Your task to perform on an android device: toggle show notifications on the lock screen Image 0: 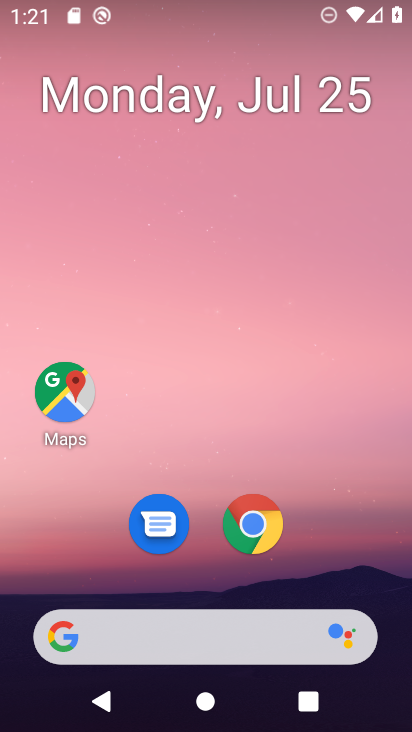
Step 0: drag from (209, 652) to (375, 170)
Your task to perform on an android device: toggle show notifications on the lock screen Image 1: 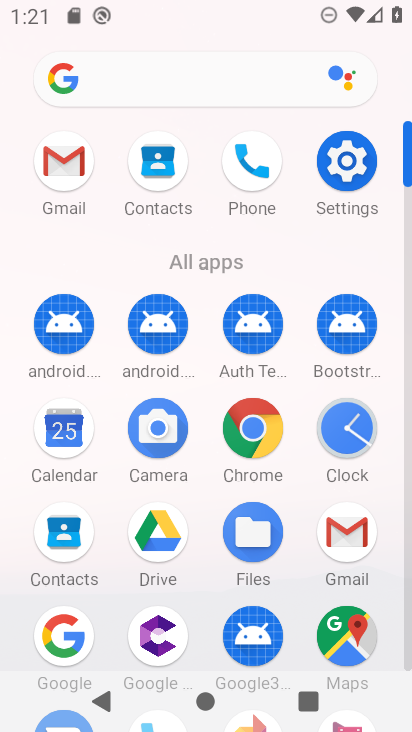
Step 1: click (337, 177)
Your task to perform on an android device: toggle show notifications on the lock screen Image 2: 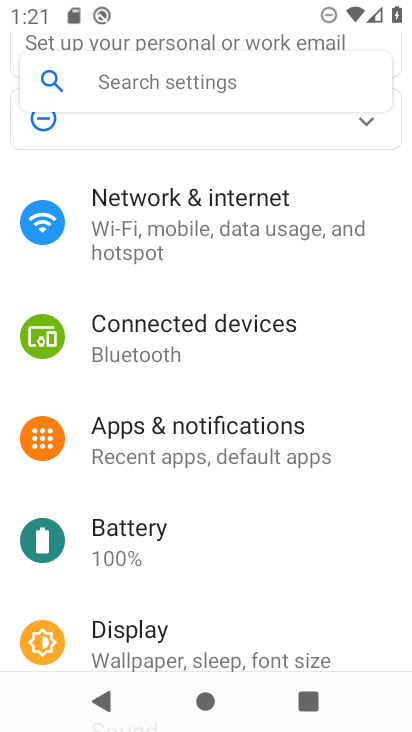
Step 2: click (201, 430)
Your task to perform on an android device: toggle show notifications on the lock screen Image 3: 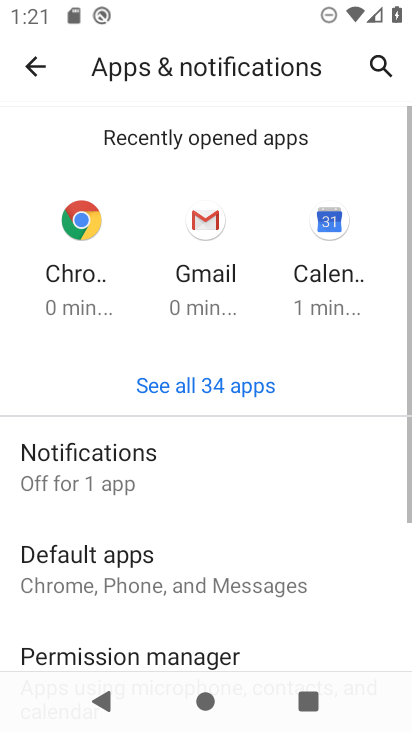
Step 3: click (126, 477)
Your task to perform on an android device: toggle show notifications on the lock screen Image 4: 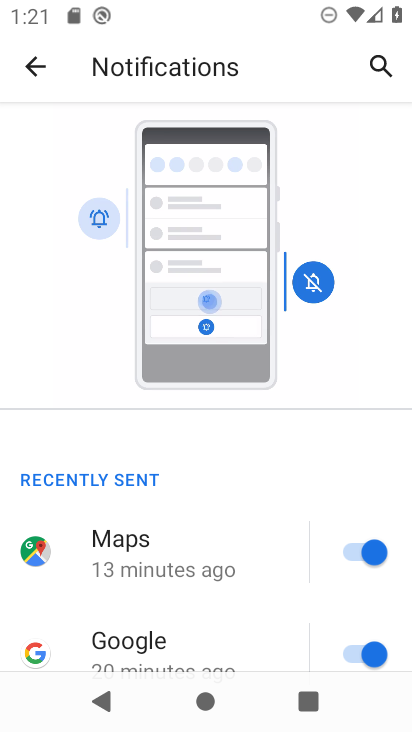
Step 4: drag from (195, 629) to (343, 203)
Your task to perform on an android device: toggle show notifications on the lock screen Image 5: 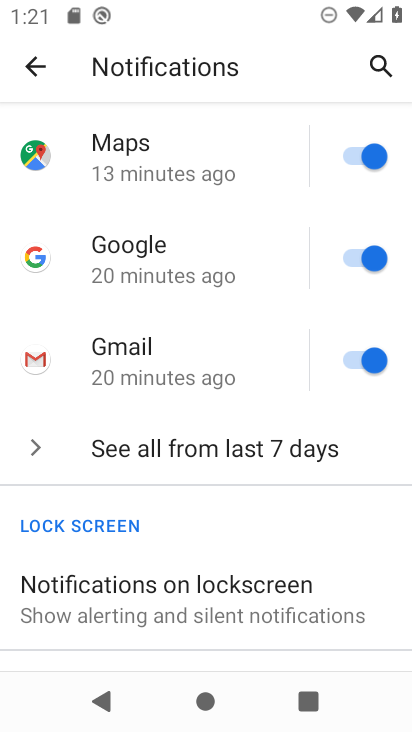
Step 5: drag from (242, 549) to (335, 328)
Your task to perform on an android device: toggle show notifications on the lock screen Image 6: 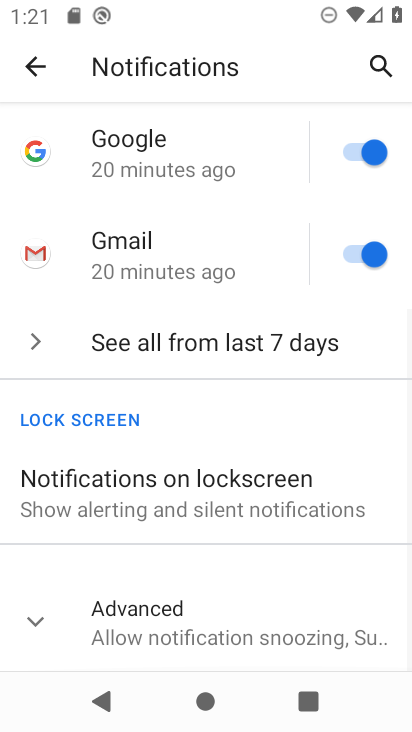
Step 6: click (249, 490)
Your task to perform on an android device: toggle show notifications on the lock screen Image 7: 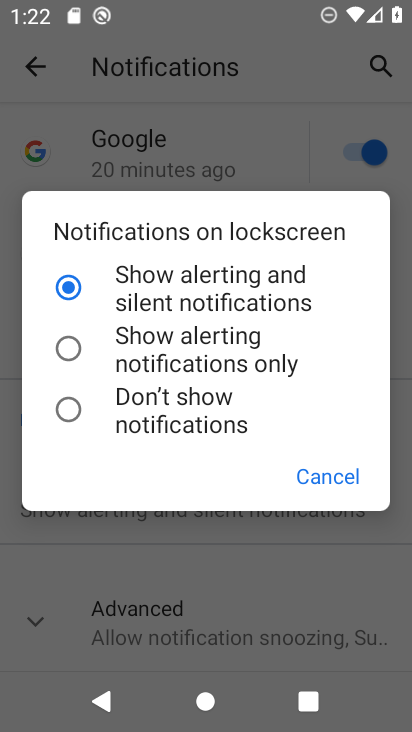
Step 7: click (61, 406)
Your task to perform on an android device: toggle show notifications on the lock screen Image 8: 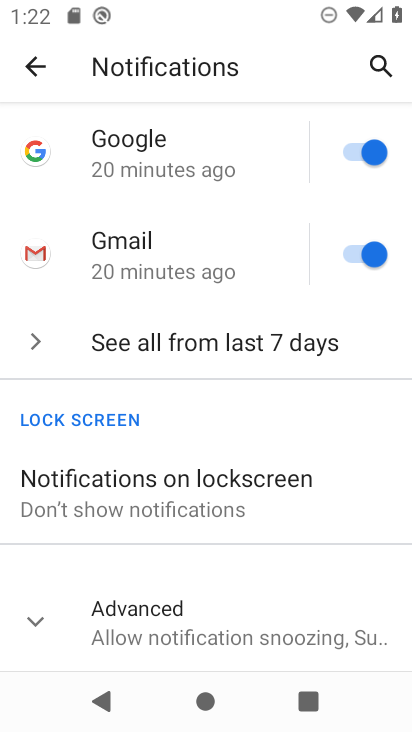
Step 8: task complete